Your task to perform on an android device: open app "Mercado Libre" (install if not already installed) and go to login screen Image 0: 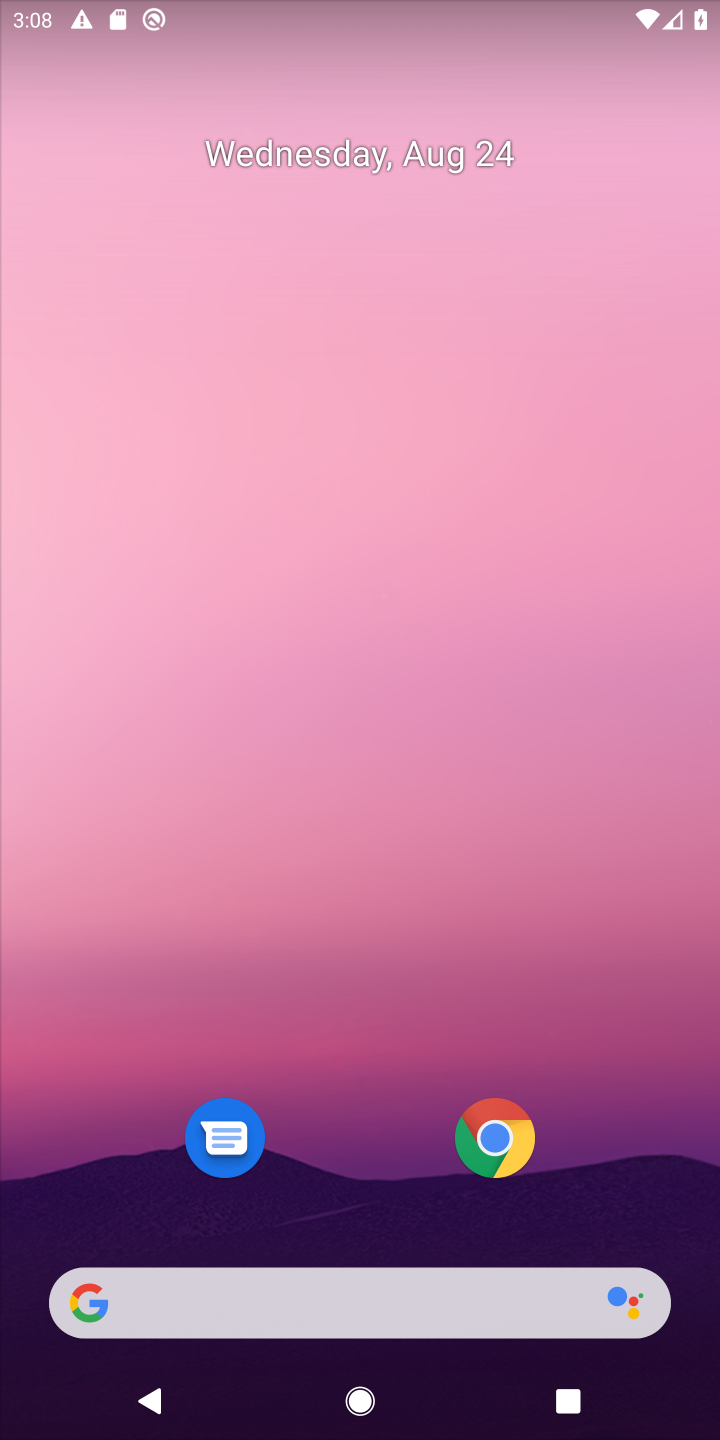
Step 0: drag from (325, 1143) to (308, 180)
Your task to perform on an android device: open app "Mercado Libre" (install if not already installed) and go to login screen Image 1: 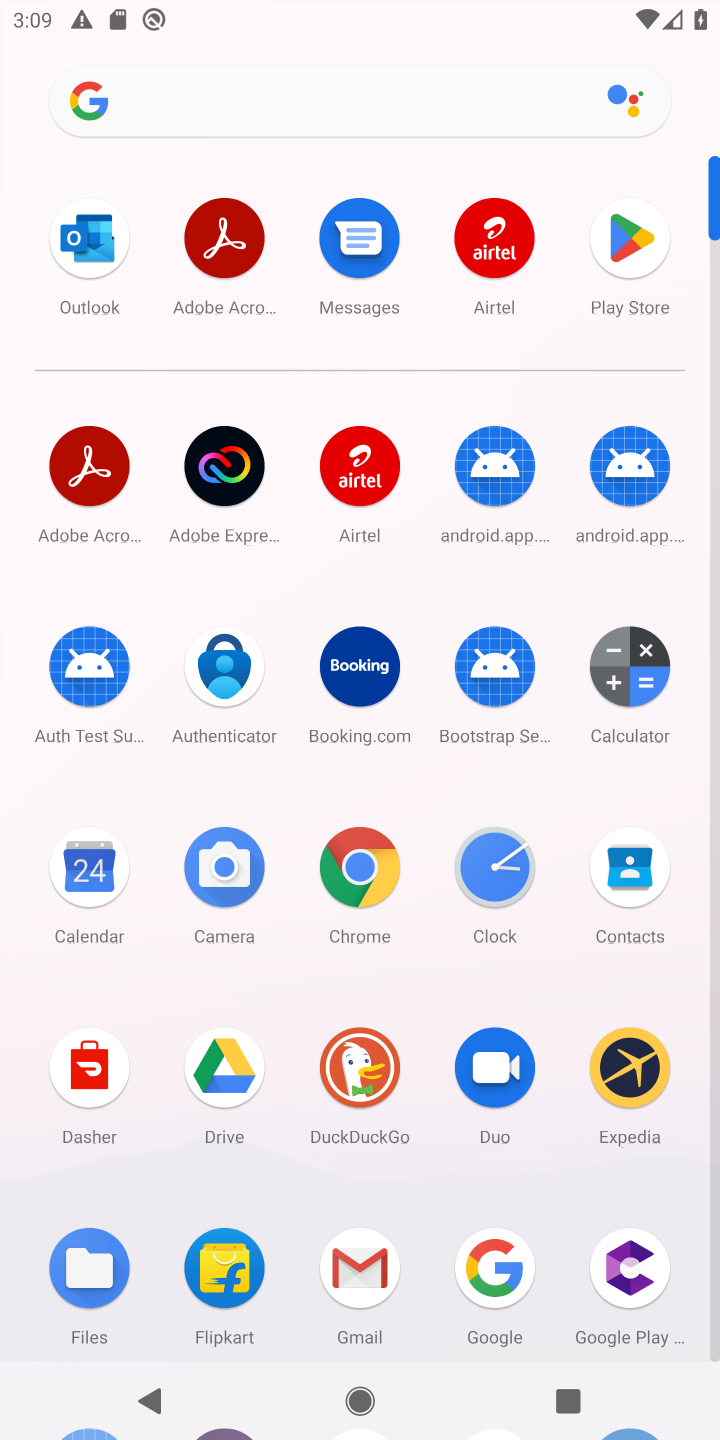
Step 1: click (634, 234)
Your task to perform on an android device: open app "Mercado Libre" (install if not already installed) and go to login screen Image 2: 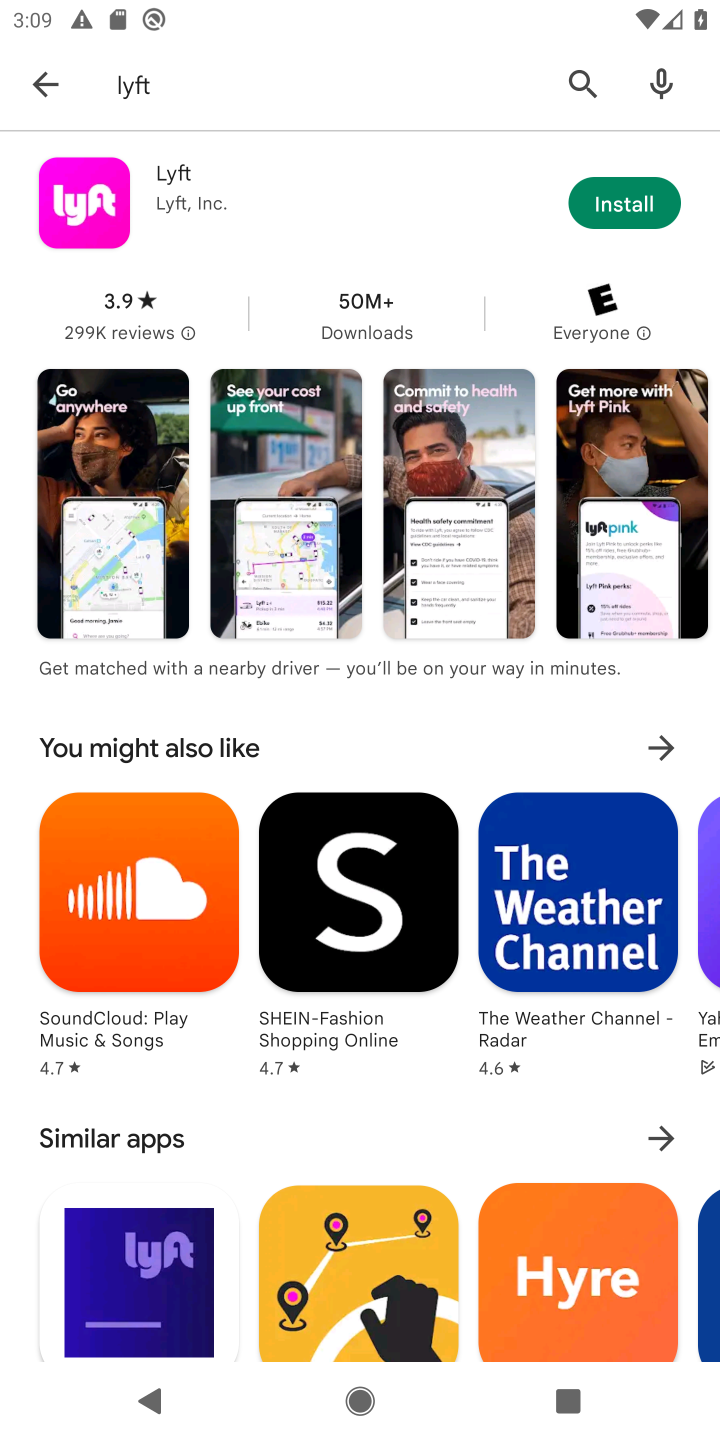
Step 2: click (584, 79)
Your task to perform on an android device: open app "Mercado Libre" (install if not already installed) and go to login screen Image 3: 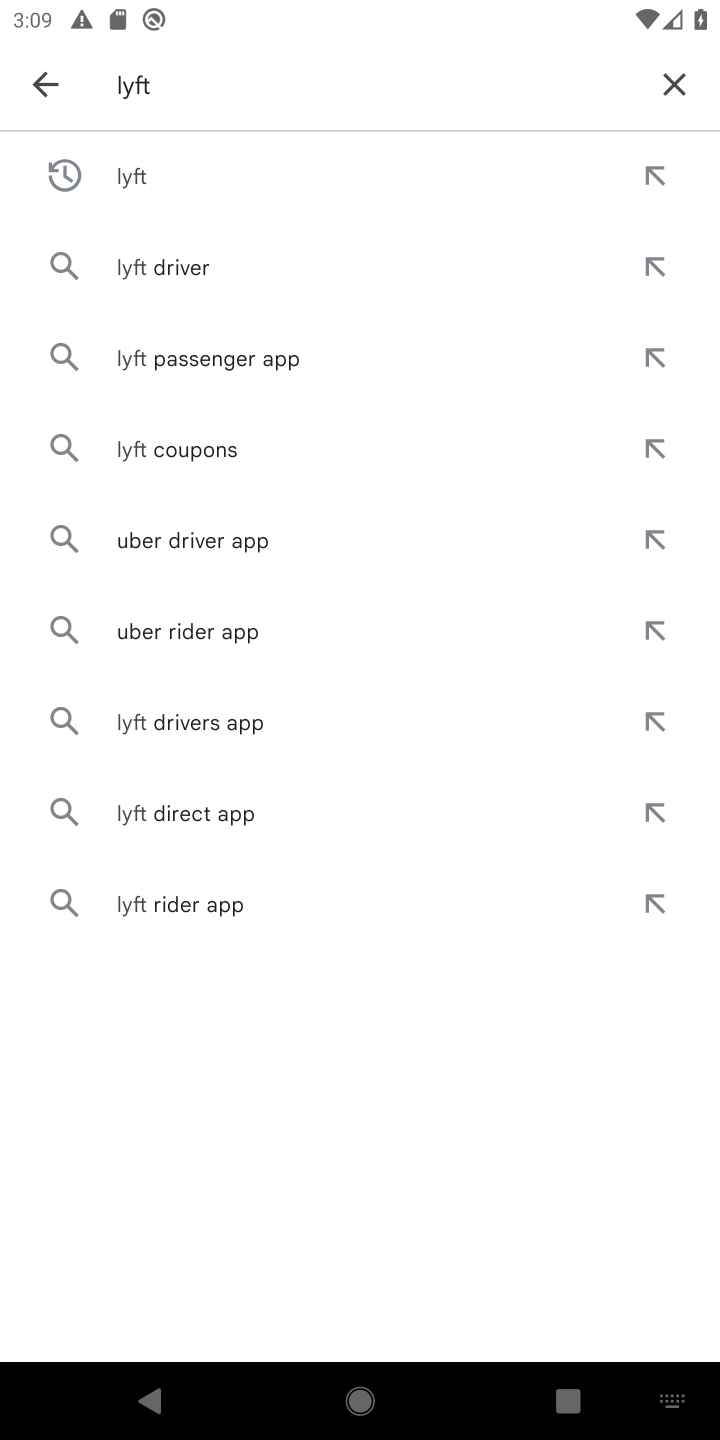
Step 3: click (658, 76)
Your task to perform on an android device: open app "Mercado Libre" (install if not already installed) and go to login screen Image 4: 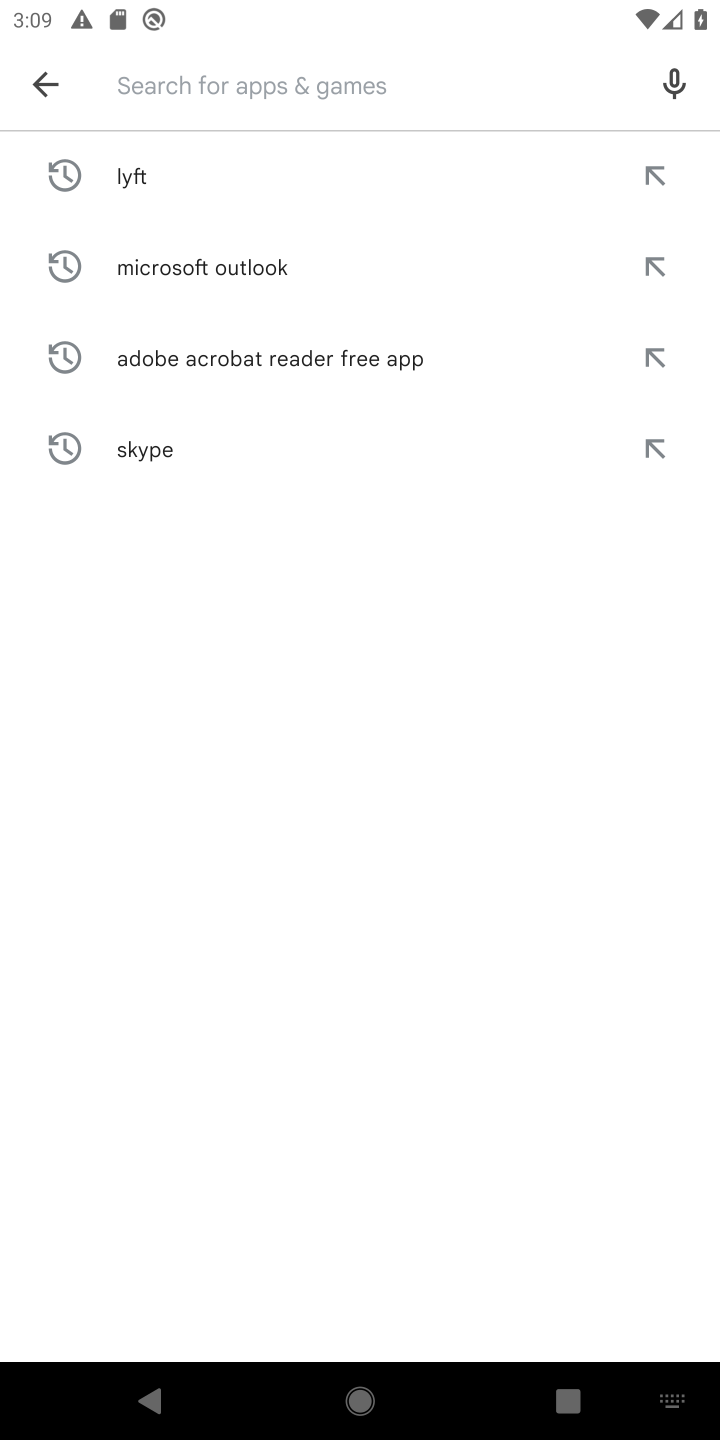
Step 4: type "Mercado Libre"
Your task to perform on an android device: open app "Mercado Libre" (install if not already installed) and go to login screen Image 5: 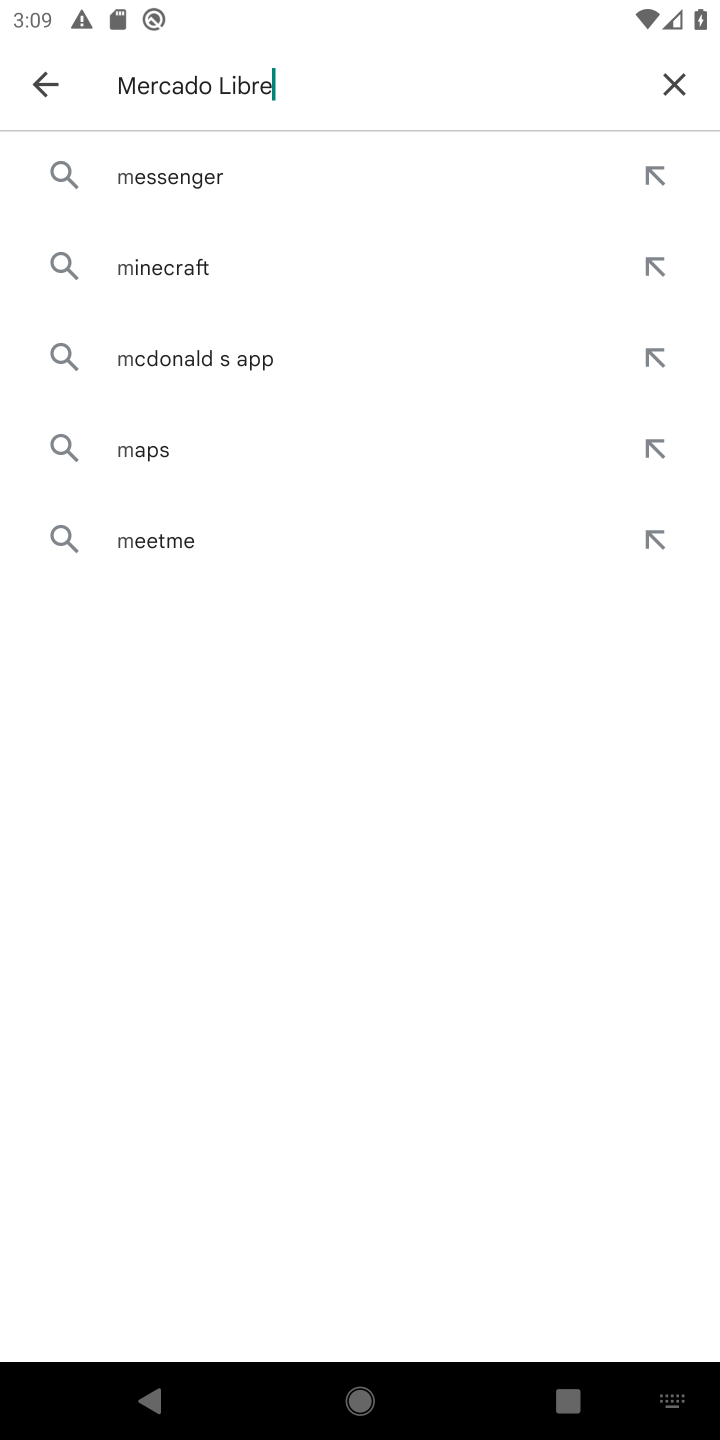
Step 5: type ""
Your task to perform on an android device: open app "Mercado Libre" (install if not already installed) and go to login screen Image 6: 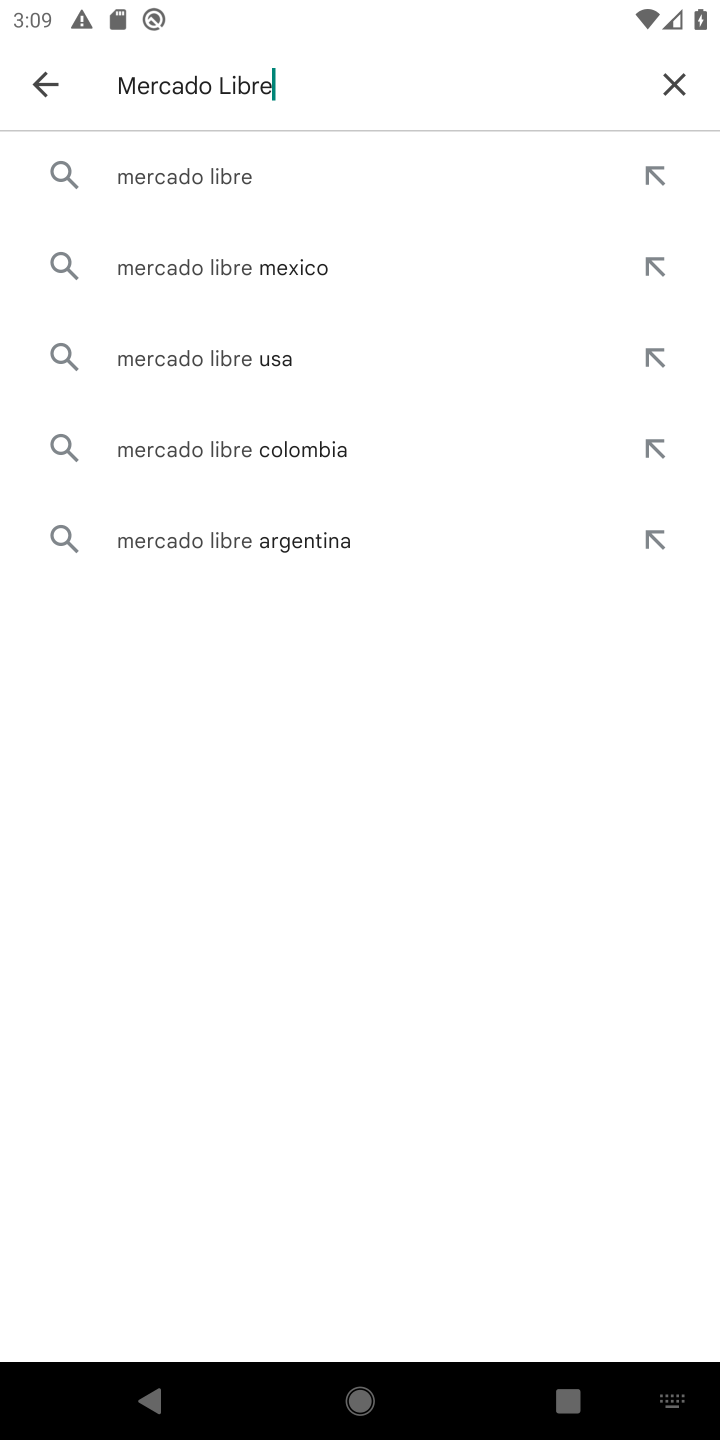
Step 6: click (206, 173)
Your task to perform on an android device: open app "Mercado Libre" (install if not already installed) and go to login screen Image 7: 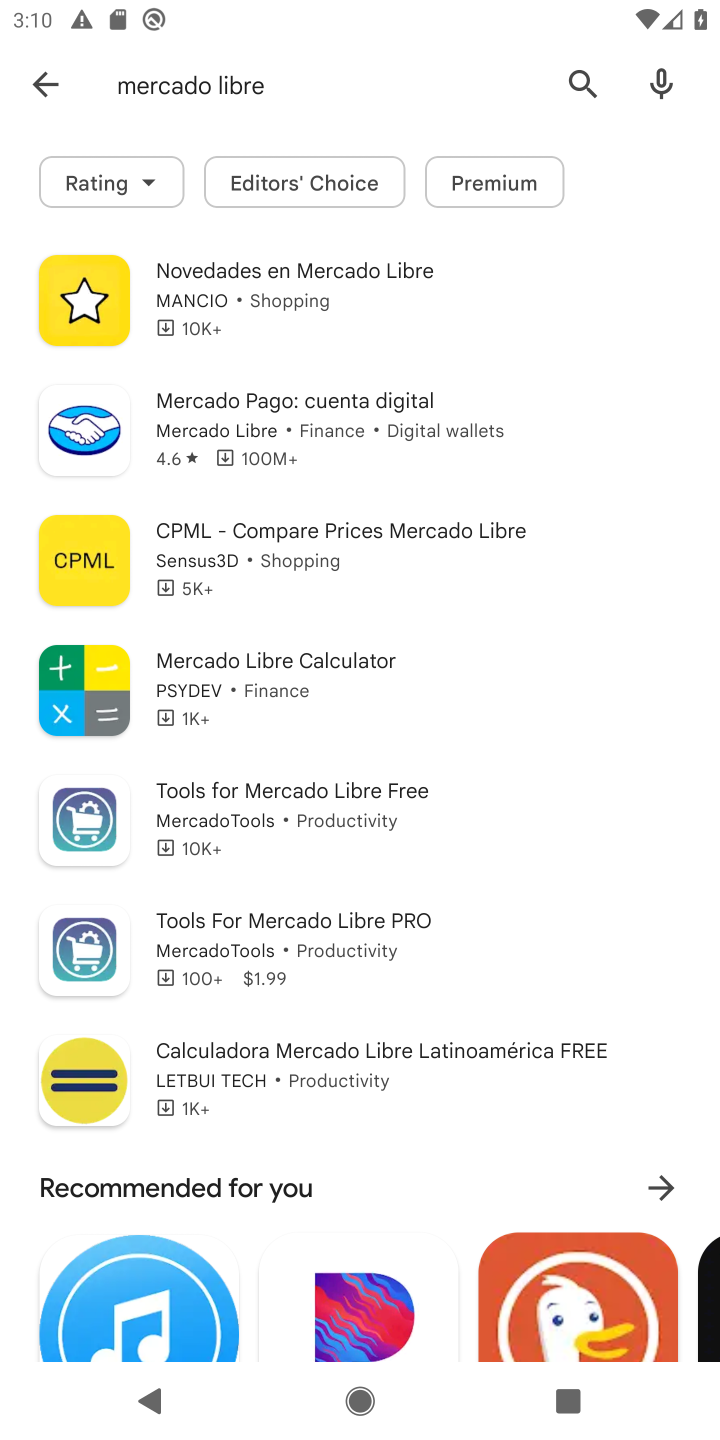
Step 7: task complete